Your task to perform on an android device: Open the map Image 0: 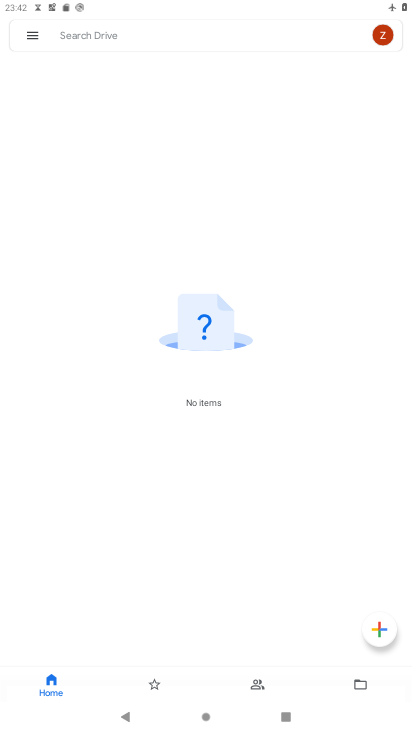
Step 0: press home button
Your task to perform on an android device: Open the map Image 1: 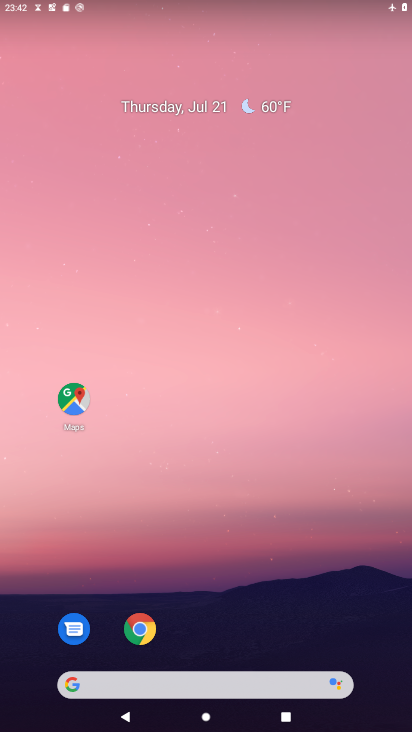
Step 1: click (67, 395)
Your task to perform on an android device: Open the map Image 2: 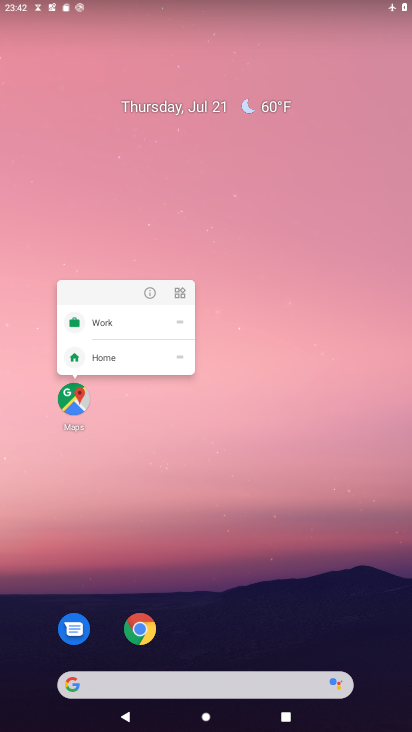
Step 2: click (77, 401)
Your task to perform on an android device: Open the map Image 3: 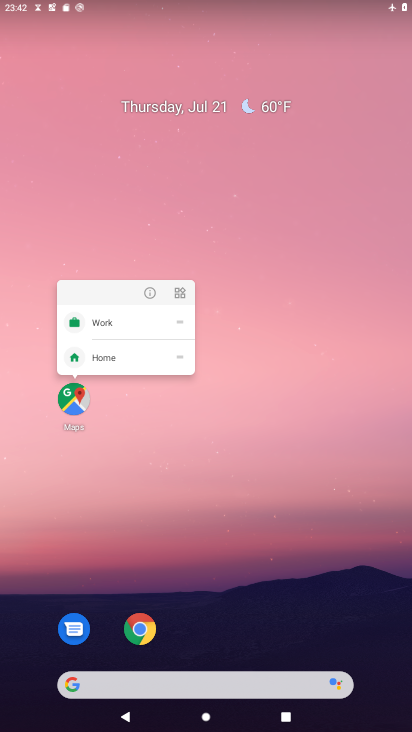
Step 3: click (71, 409)
Your task to perform on an android device: Open the map Image 4: 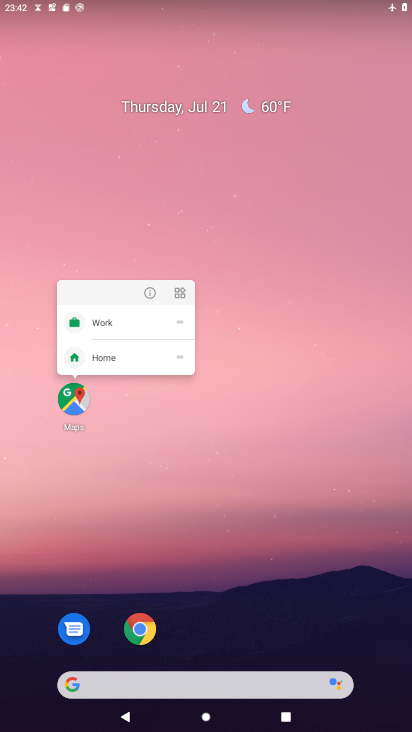
Step 4: click (67, 391)
Your task to perform on an android device: Open the map Image 5: 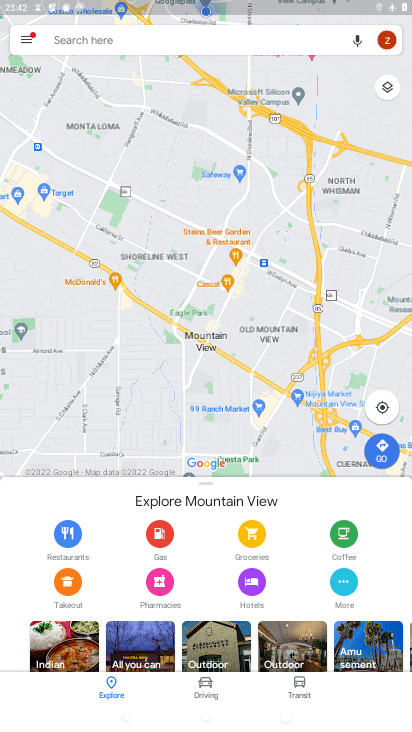
Step 5: task complete